Your task to perform on an android device: choose inbox layout in the gmail app Image 0: 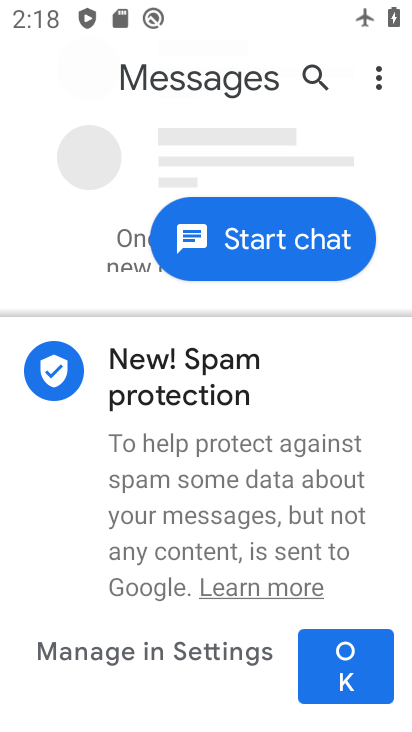
Step 0: press back button
Your task to perform on an android device: choose inbox layout in the gmail app Image 1: 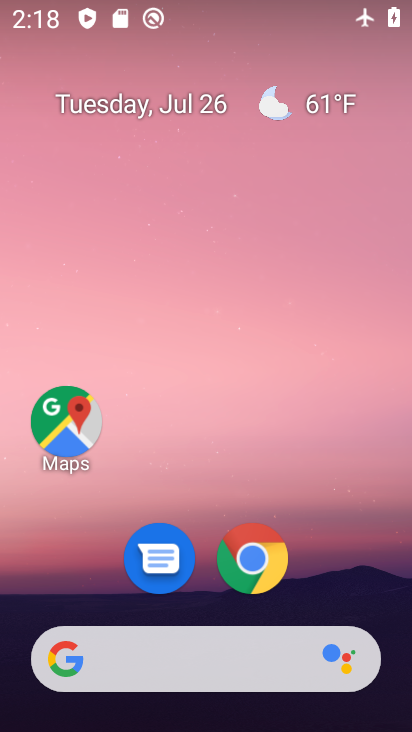
Step 1: drag from (192, 598) to (290, 27)
Your task to perform on an android device: choose inbox layout in the gmail app Image 2: 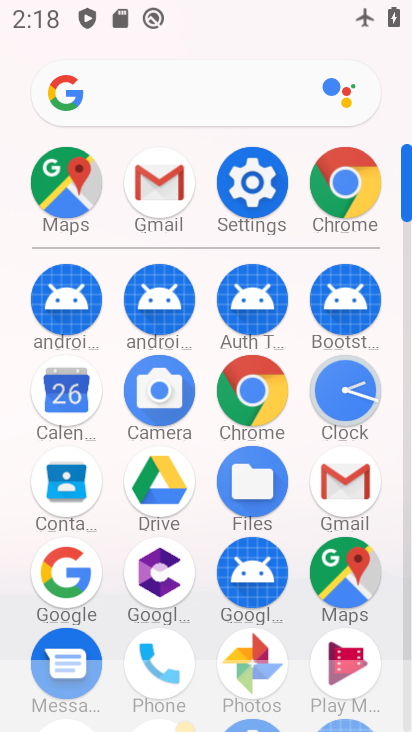
Step 2: click (156, 181)
Your task to perform on an android device: choose inbox layout in the gmail app Image 3: 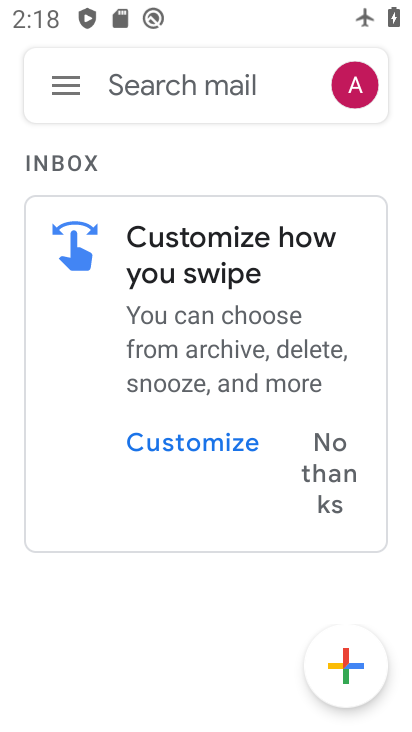
Step 3: click (52, 85)
Your task to perform on an android device: choose inbox layout in the gmail app Image 4: 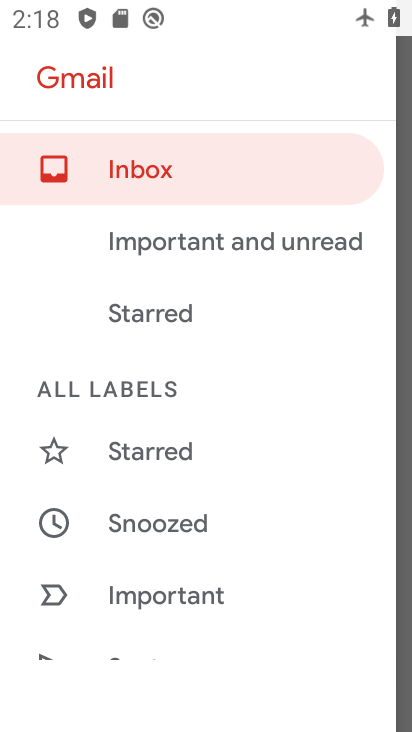
Step 4: drag from (159, 549) to (256, 18)
Your task to perform on an android device: choose inbox layout in the gmail app Image 5: 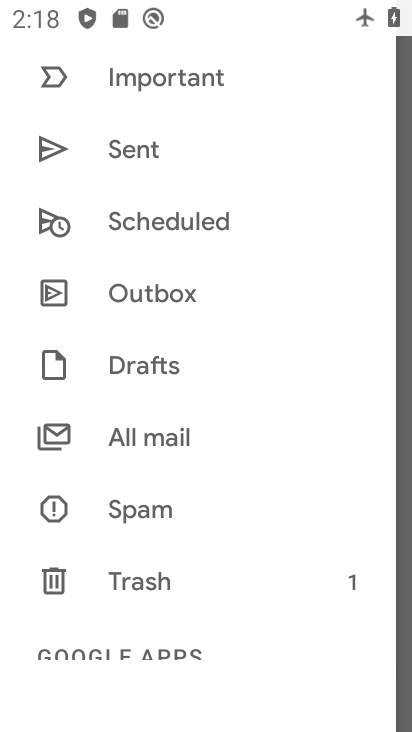
Step 5: drag from (150, 602) to (266, 63)
Your task to perform on an android device: choose inbox layout in the gmail app Image 6: 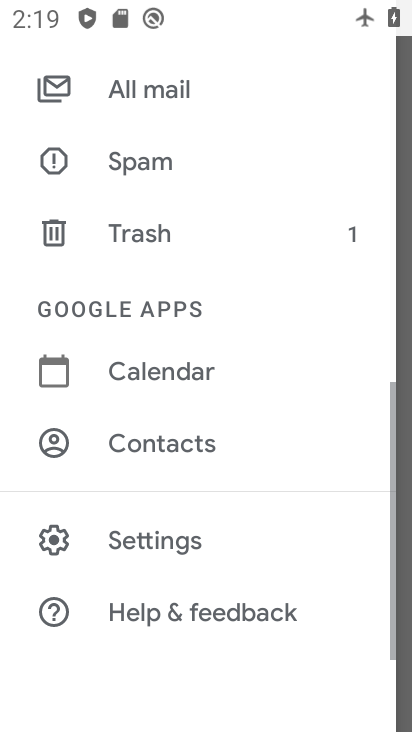
Step 6: click (158, 537)
Your task to perform on an android device: choose inbox layout in the gmail app Image 7: 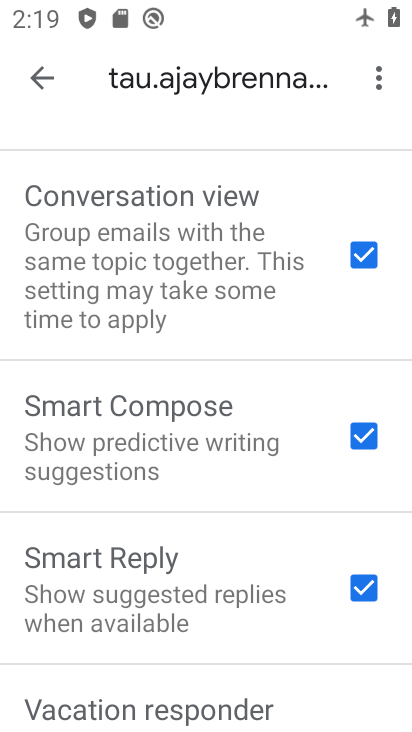
Step 7: drag from (233, 209) to (227, 657)
Your task to perform on an android device: choose inbox layout in the gmail app Image 8: 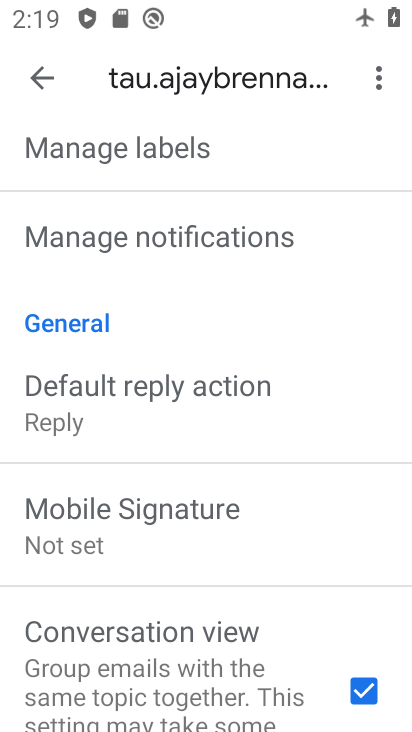
Step 8: drag from (292, 119) to (240, 697)
Your task to perform on an android device: choose inbox layout in the gmail app Image 9: 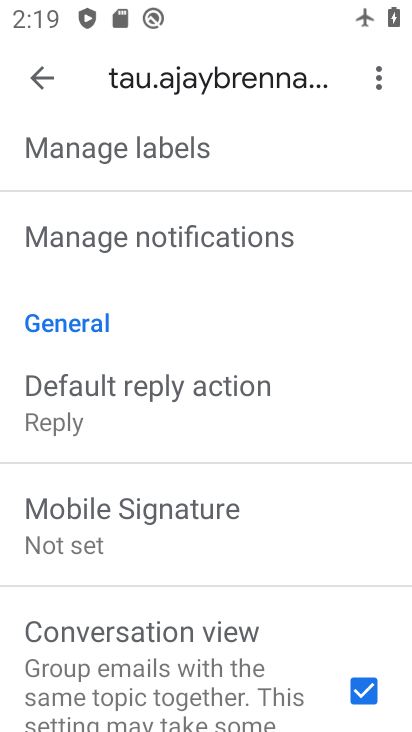
Step 9: drag from (257, 182) to (140, 730)
Your task to perform on an android device: choose inbox layout in the gmail app Image 10: 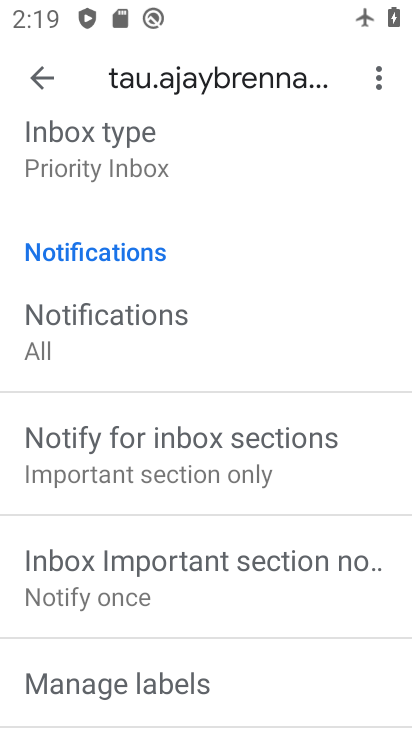
Step 10: drag from (277, 197) to (266, 569)
Your task to perform on an android device: choose inbox layout in the gmail app Image 11: 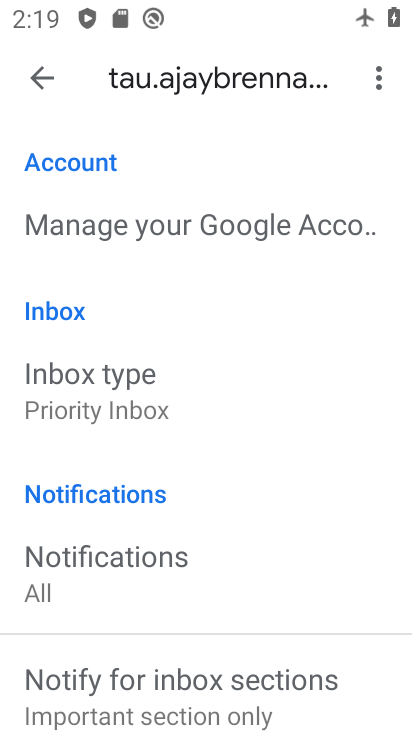
Step 11: click (92, 391)
Your task to perform on an android device: choose inbox layout in the gmail app Image 12: 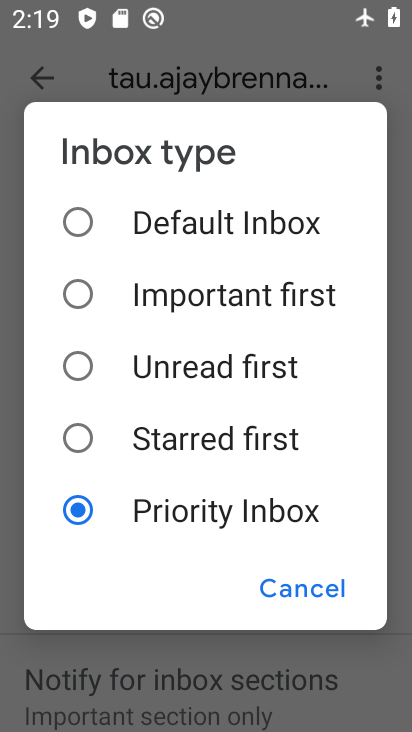
Step 12: click (92, 220)
Your task to perform on an android device: choose inbox layout in the gmail app Image 13: 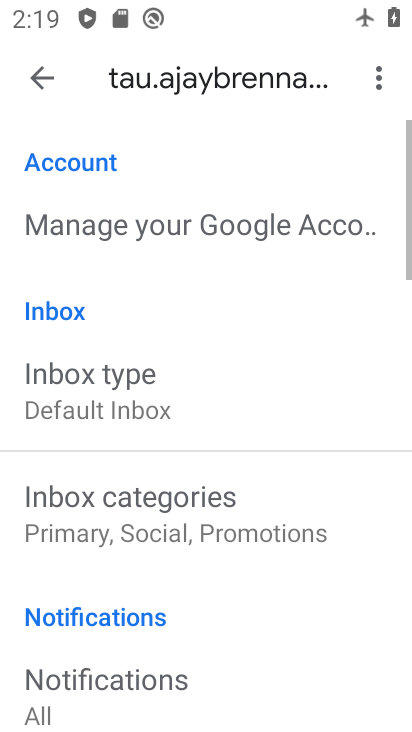
Step 13: task complete